Your task to perform on an android device: Go to Reddit.com Image 0: 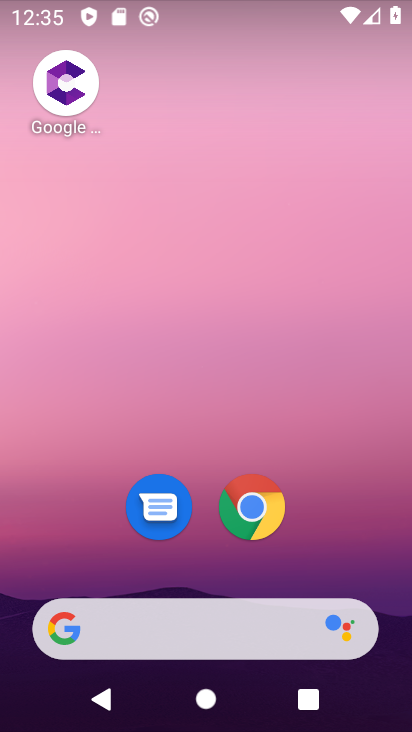
Step 0: click (261, 511)
Your task to perform on an android device: Go to Reddit.com Image 1: 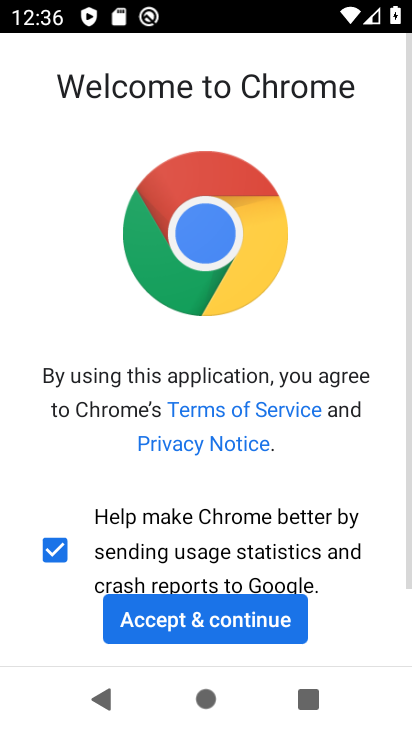
Step 1: click (215, 628)
Your task to perform on an android device: Go to Reddit.com Image 2: 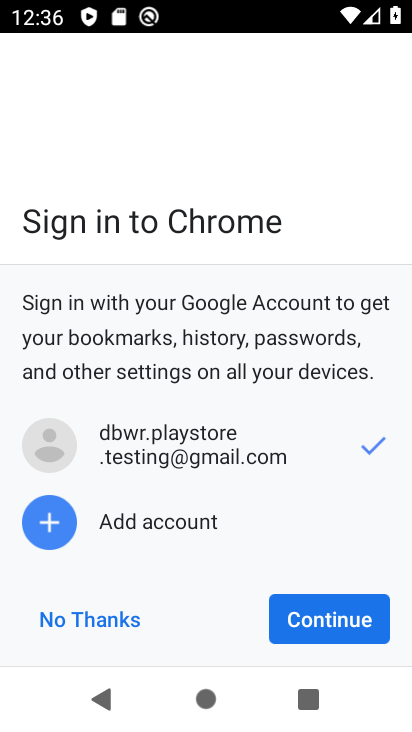
Step 2: click (308, 611)
Your task to perform on an android device: Go to Reddit.com Image 3: 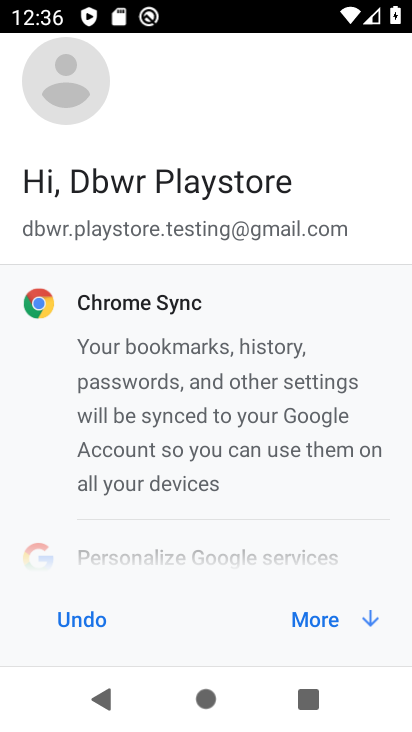
Step 3: click (303, 615)
Your task to perform on an android device: Go to Reddit.com Image 4: 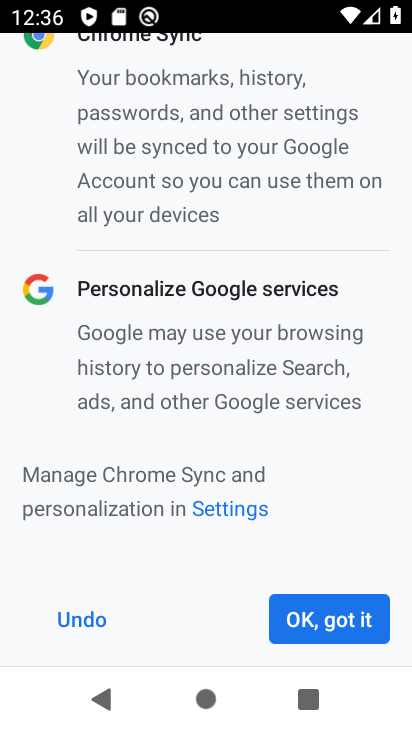
Step 4: click (303, 615)
Your task to perform on an android device: Go to Reddit.com Image 5: 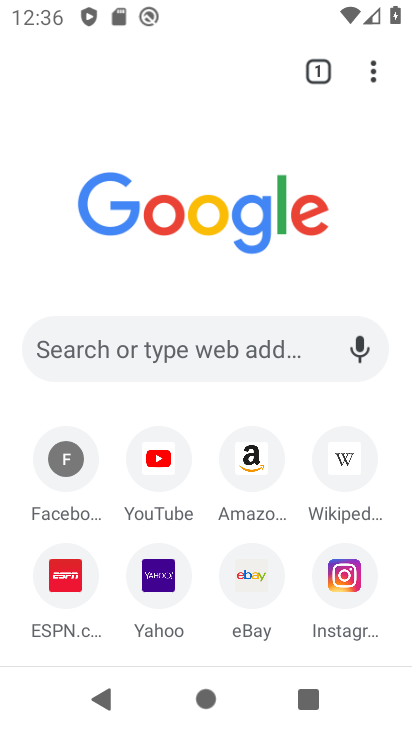
Step 5: click (169, 340)
Your task to perform on an android device: Go to Reddit.com Image 6: 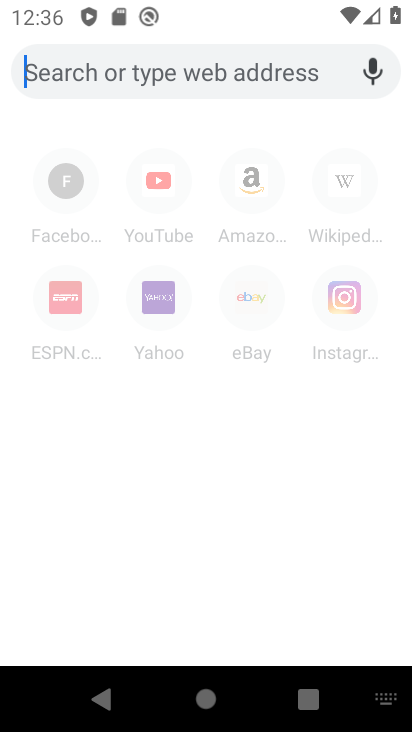
Step 6: type "reddit.com"
Your task to perform on an android device: Go to Reddit.com Image 7: 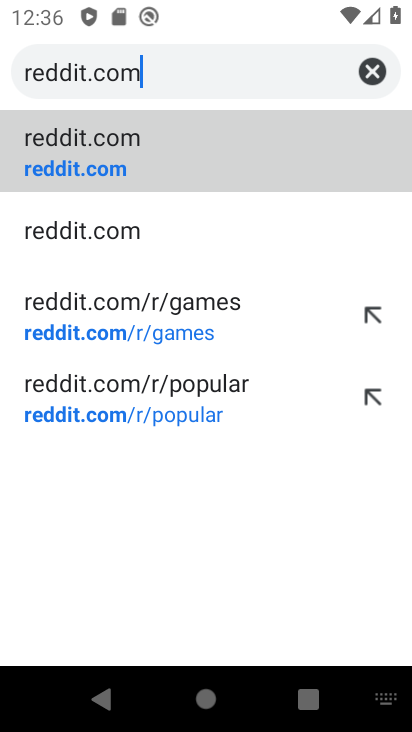
Step 7: click (89, 164)
Your task to perform on an android device: Go to Reddit.com Image 8: 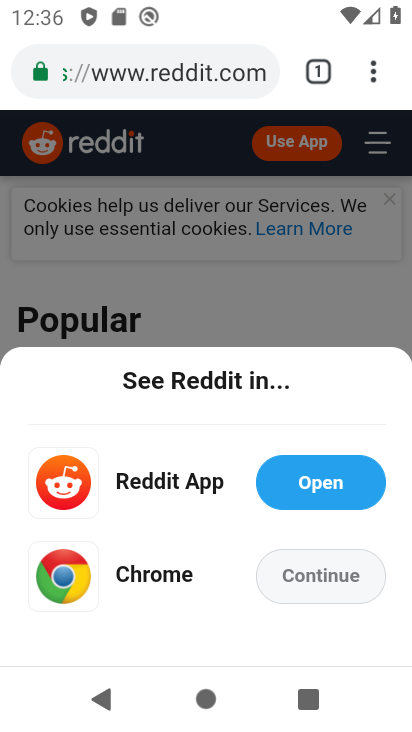
Step 8: task complete